Your task to perform on an android device: snooze an email in the gmail app Image 0: 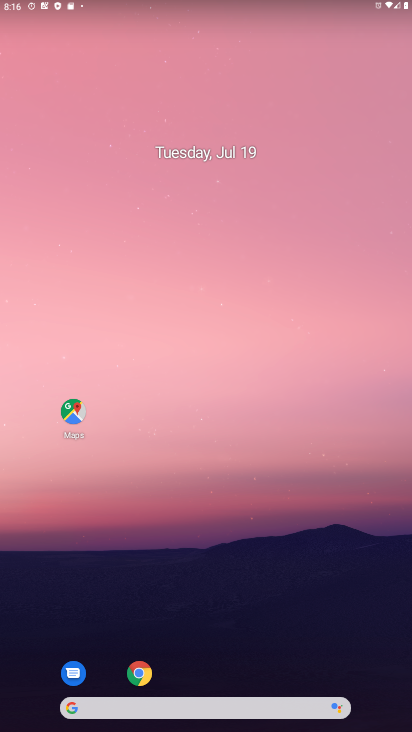
Step 0: drag from (292, 512) to (327, 88)
Your task to perform on an android device: snooze an email in the gmail app Image 1: 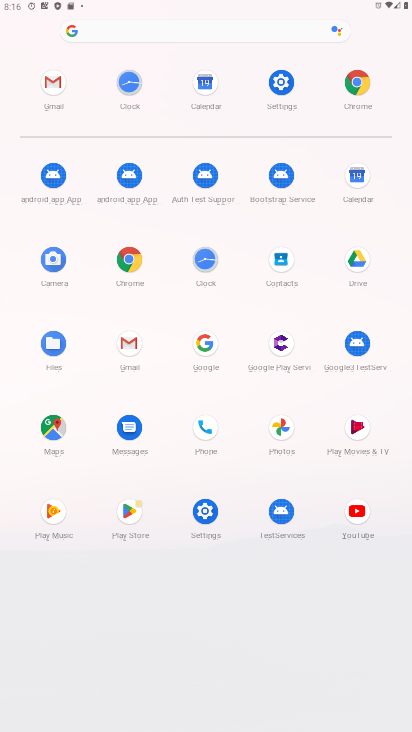
Step 1: click (48, 80)
Your task to perform on an android device: snooze an email in the gmail app Image 2: 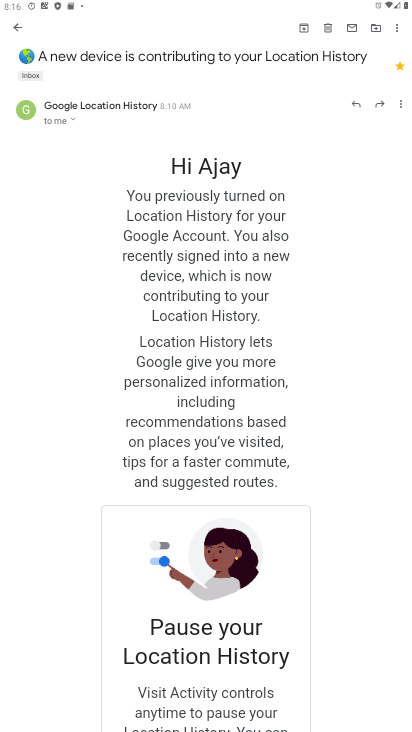
Step 2: click (5, 23)
Your task to perform on an android device: snooze an email in the gmail app Image 3: 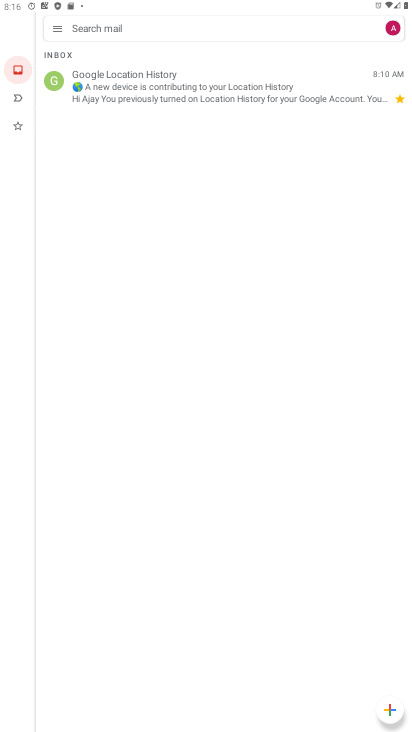
Step 3: click (169, 92)
Your task to perform on an android device: snooze an email in the gmail app Image 4: 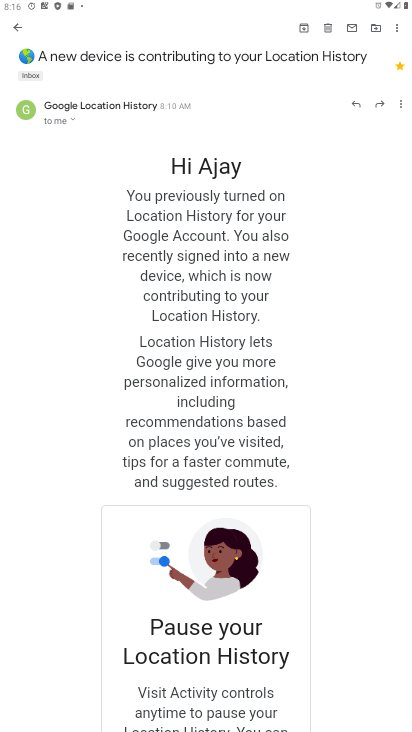
Step 4: click (397, 22)
Your task to perform on an android device: snooze an email in the gmail app Image 5: 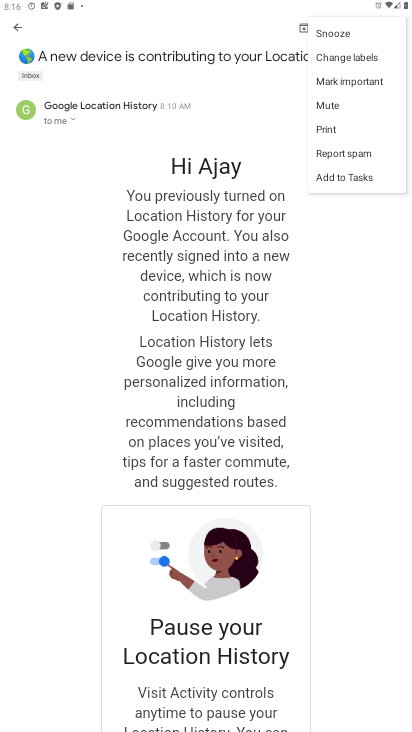
Step 5: click (325, 31)
Your task to perform on an android device: snooze an email in the gmail app Image 6: 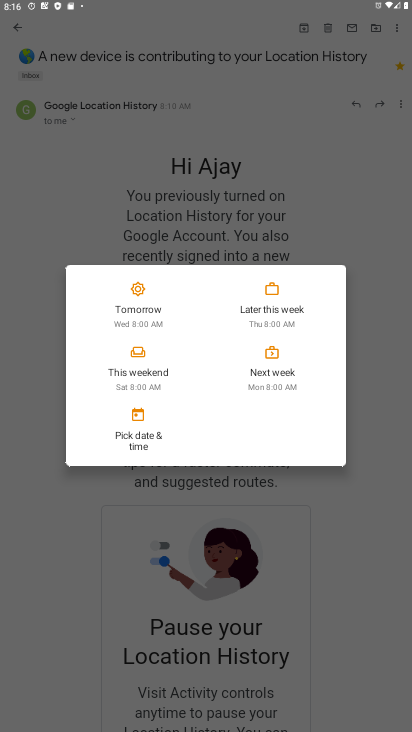
Step 6: click (123, 296)
Your task to perform on an android device: snooze an email in the gmail app Image 7: 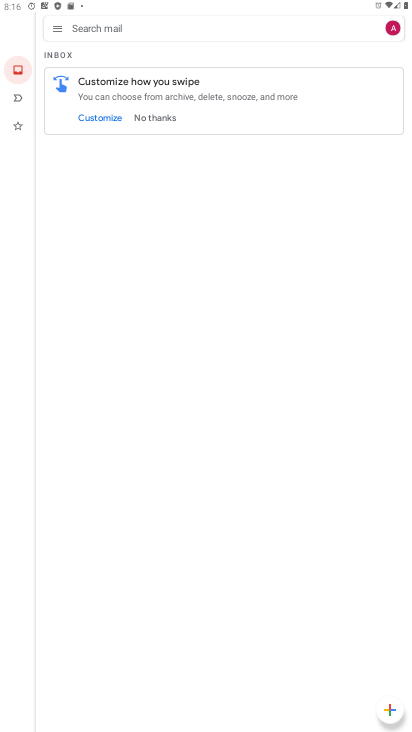
Step 7: task complete